Your task to perform on an android device: see tabs open on other devices in the chrome app Image 0: 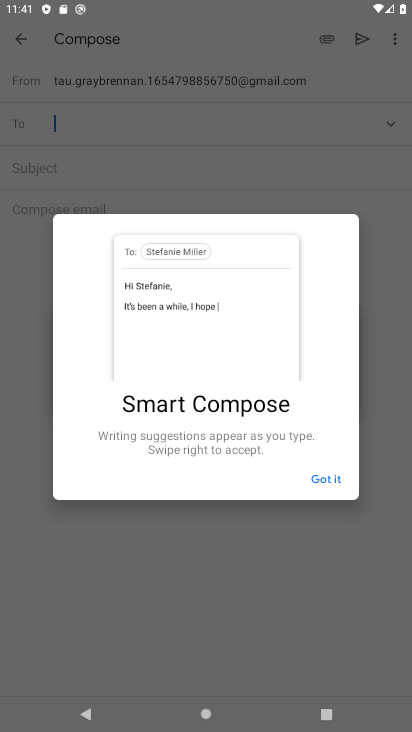
Step 0: press home button
Your task to perform on an android device: see tabs open on other devices in the chrome app Image 1: 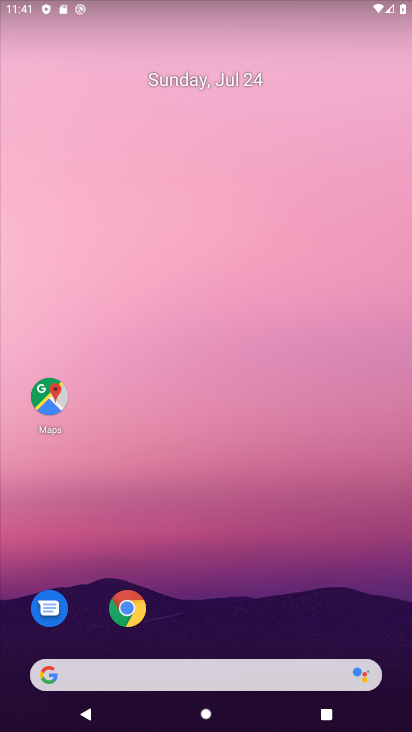
Step 1: click (125, 605)
Your task to perform on an android device: see tabs open on other devices in the chrome app Image 2: 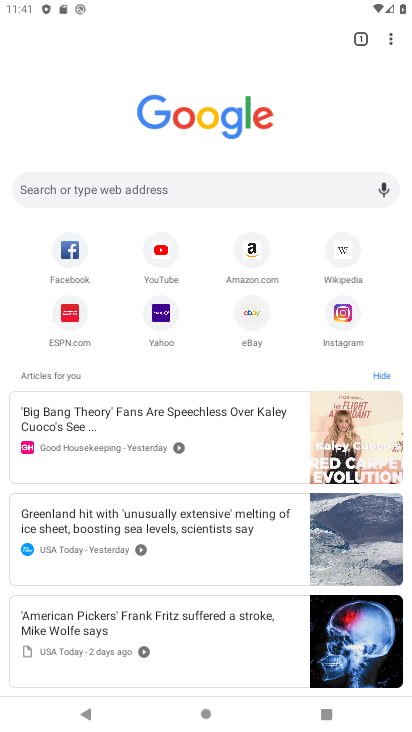
Step 2: task complete